Your task to perform on an android device: Show the shopping cart on costco. Add "macbook pro 13 inch" to the cart on costco, then select checkout. Image 0: 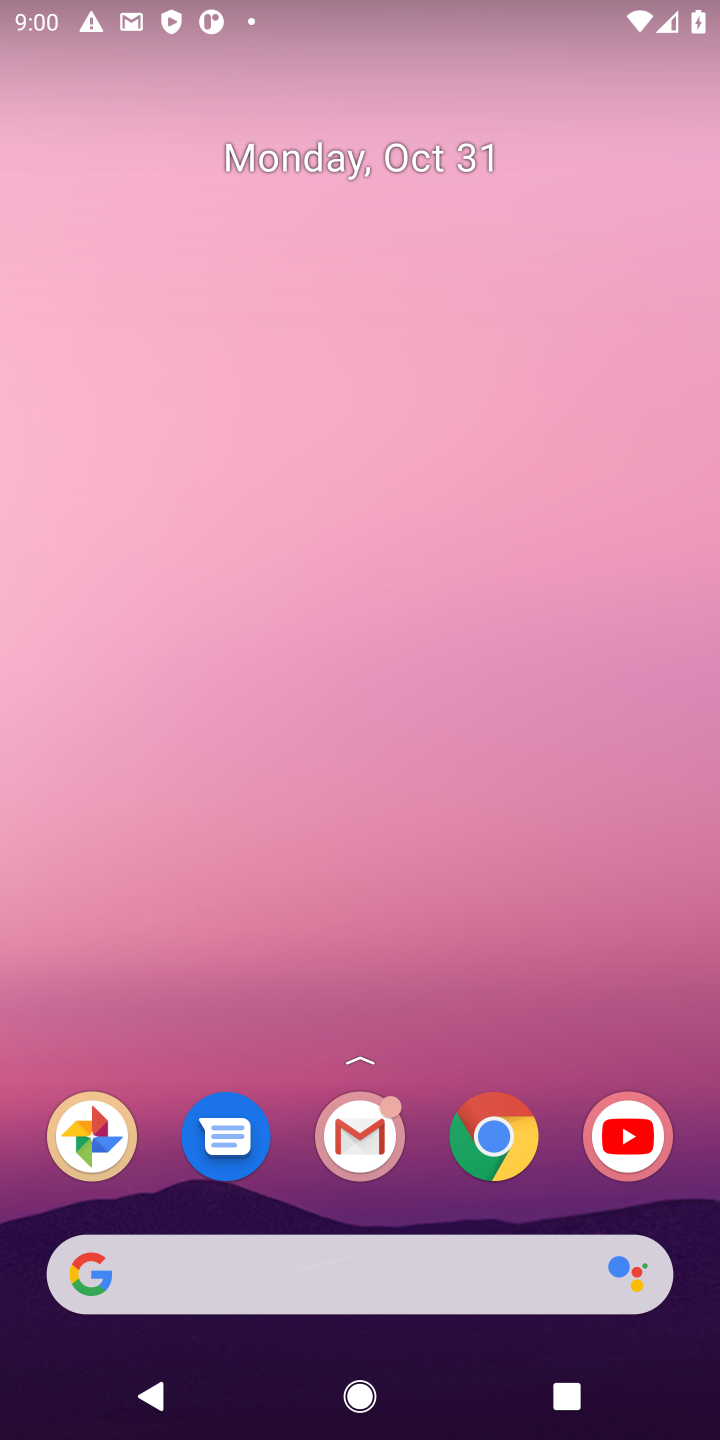
Step 0: click (89, 1274)
Your task to perform on an android device: Show the shopping cart on costco. Add "macbook pro 13 inch" to the cart on costco, then select checkout. Image 1: 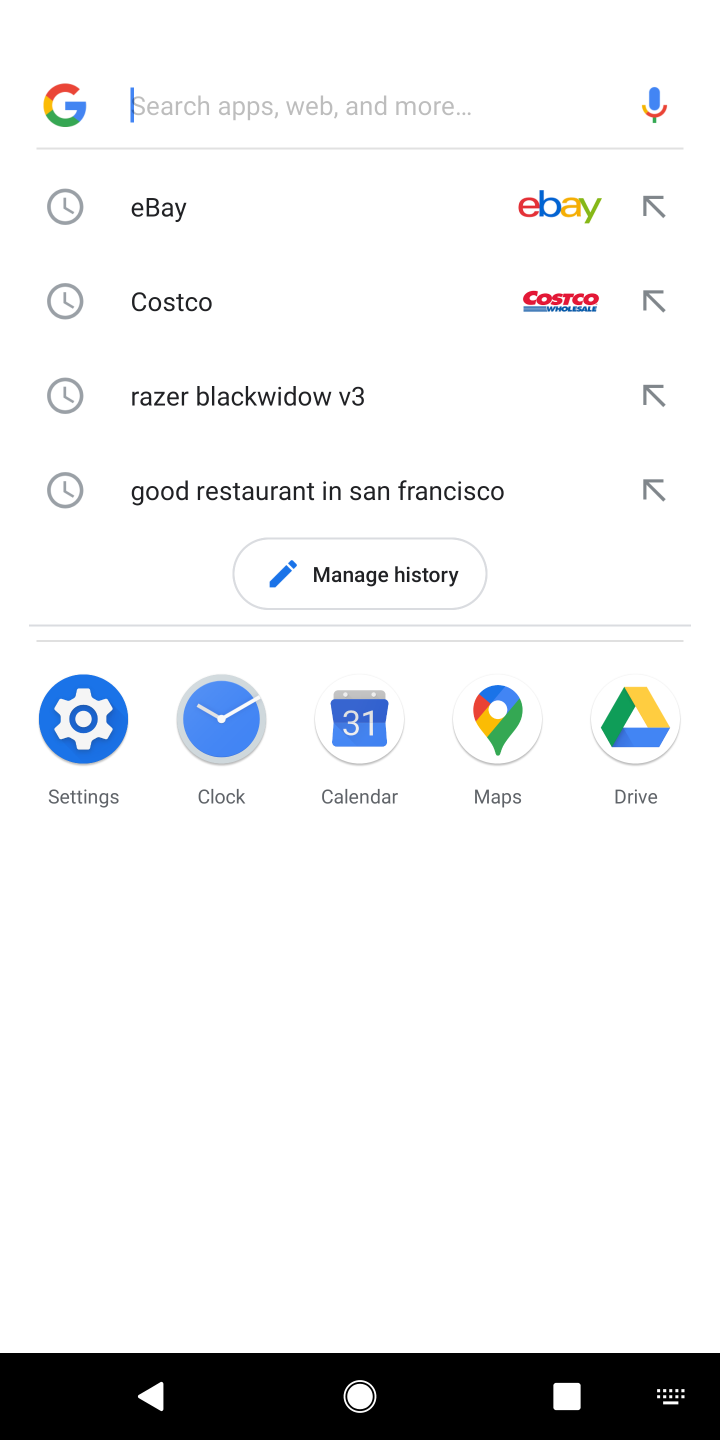
Step 1: type "cos"
Your task to perform on an android device: Show the shopping cart on costco. Add "macbook pro 13 inch" to the cart on costco, then select checkout. Image 2: 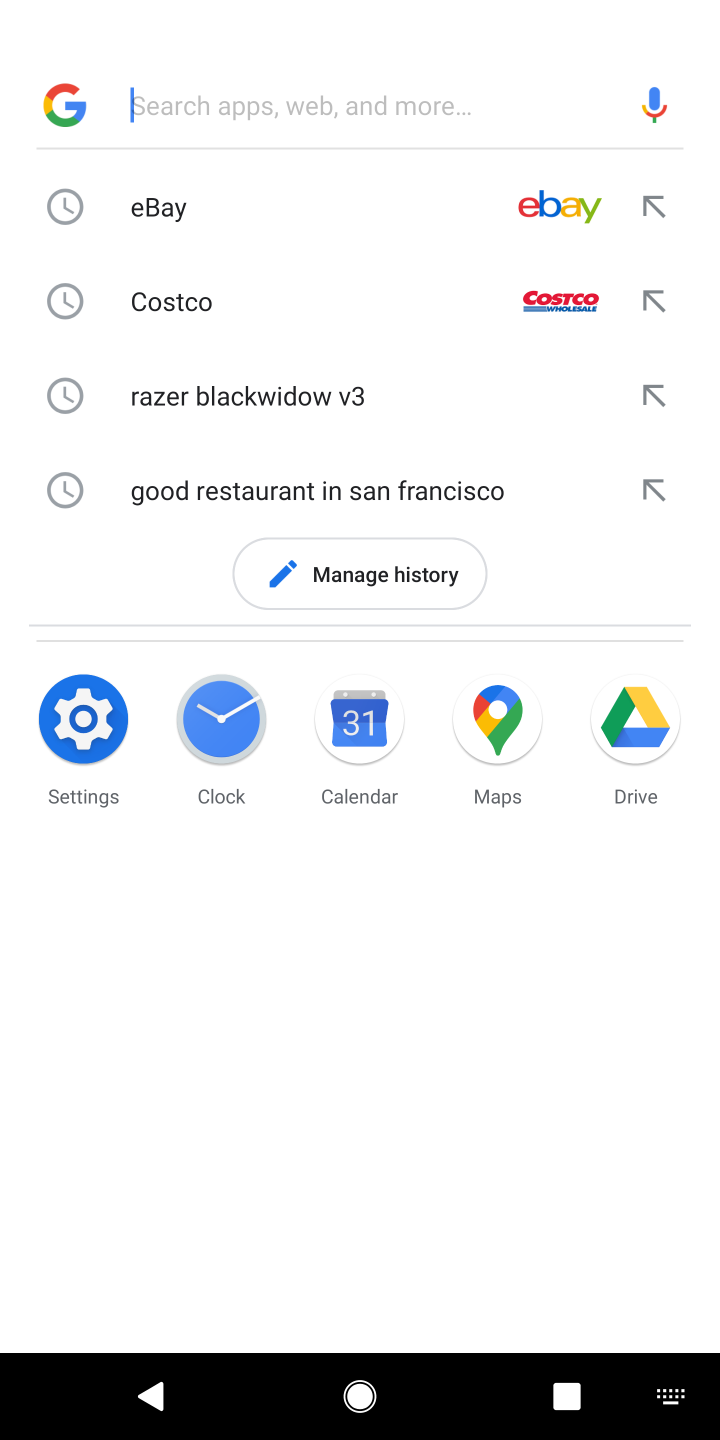
Step 2: click (210, 312)
Your task to perform on an android device: Show the shopping cart on costco. Add "macbook pro 13 inch" to the cart on costco, then select checkout. Image 3: 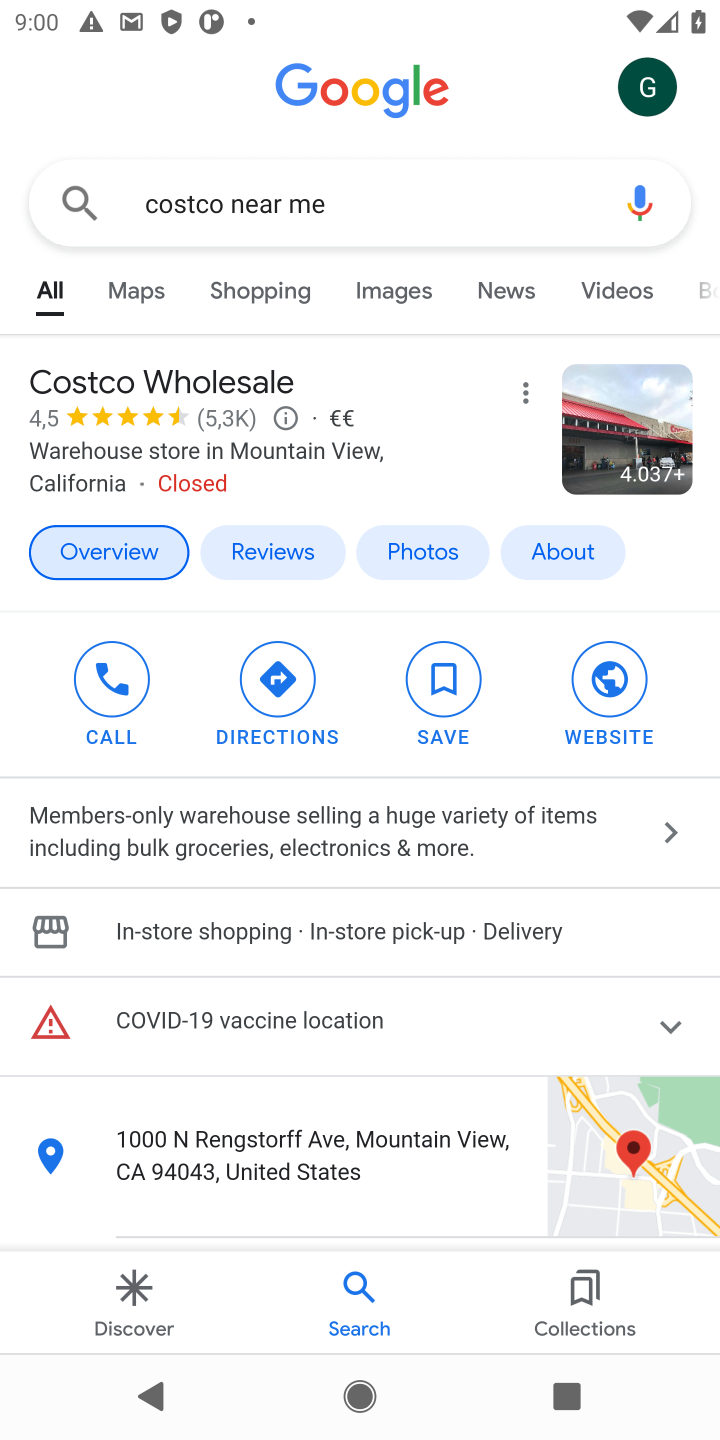
Step 3: click (129, 376)
Your task to perform on an android device: Show the shopping cart on costco. Add "macbook pro 13 inch" to the cart on costco, then select checkout. Image 4: 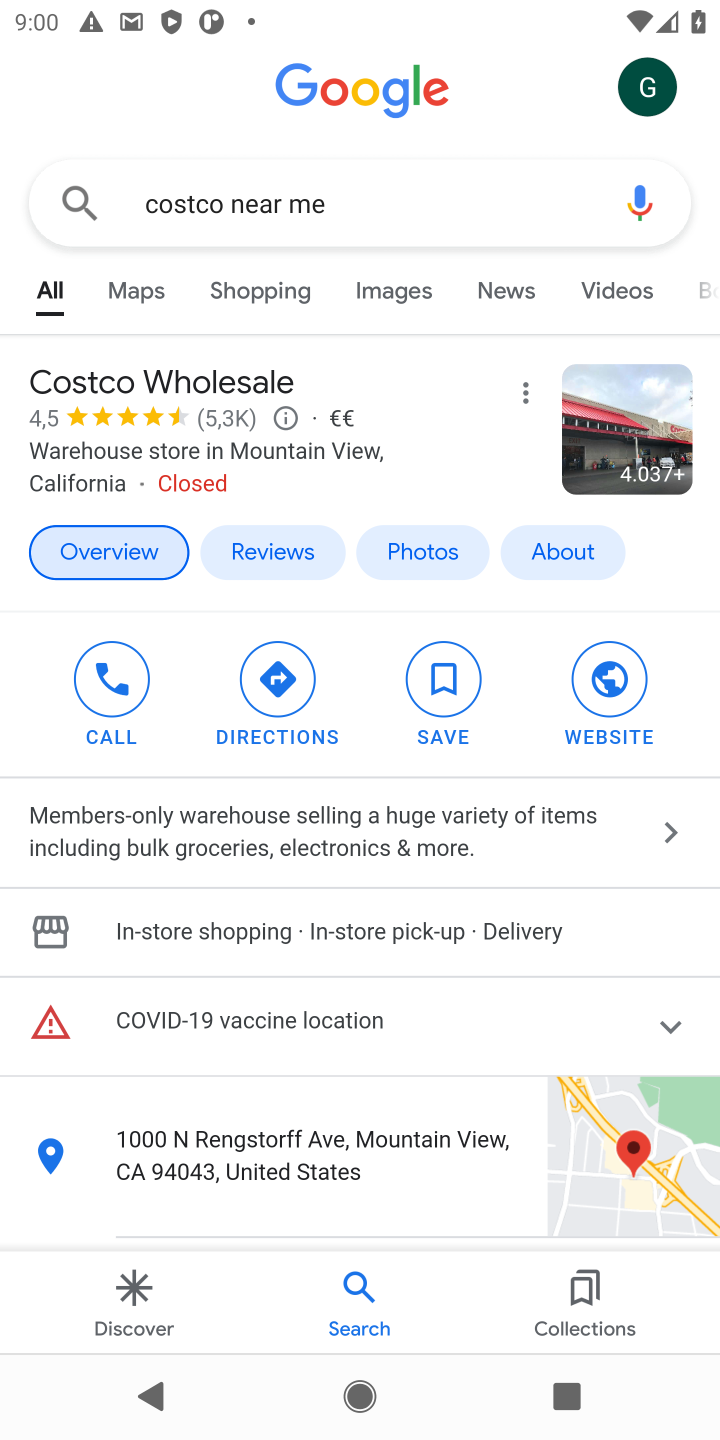
Step 4: click (466, 194)
Your task to perform on an android device: Show the shopping cart on costco. Add "macbook pro 13 inch" to the cart on costco, then select checkout. Image 5: 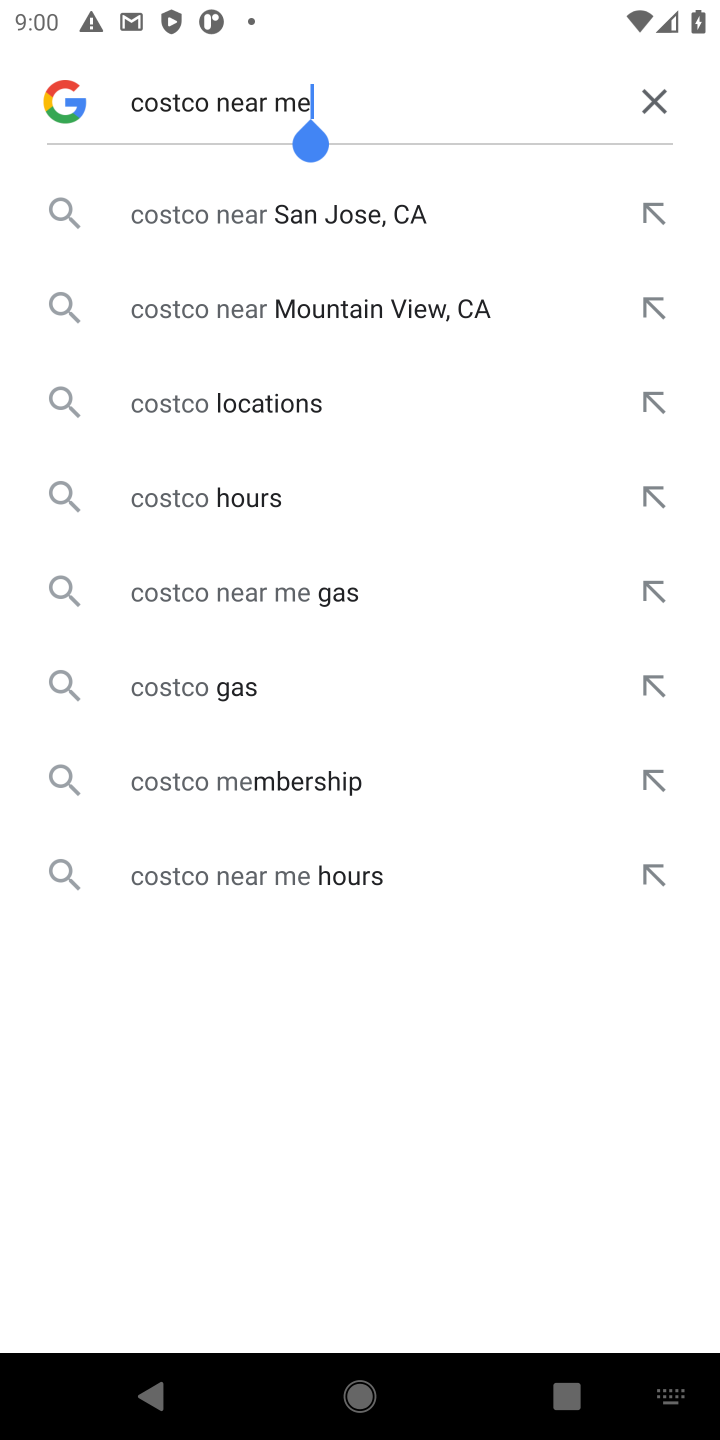
Step 5: click (652, 100)
Your task to perform on an android device: Show the shopping cart on costco. Add "macbook pro 13 inch" to the cart on costco, then select checkout. Image 6: 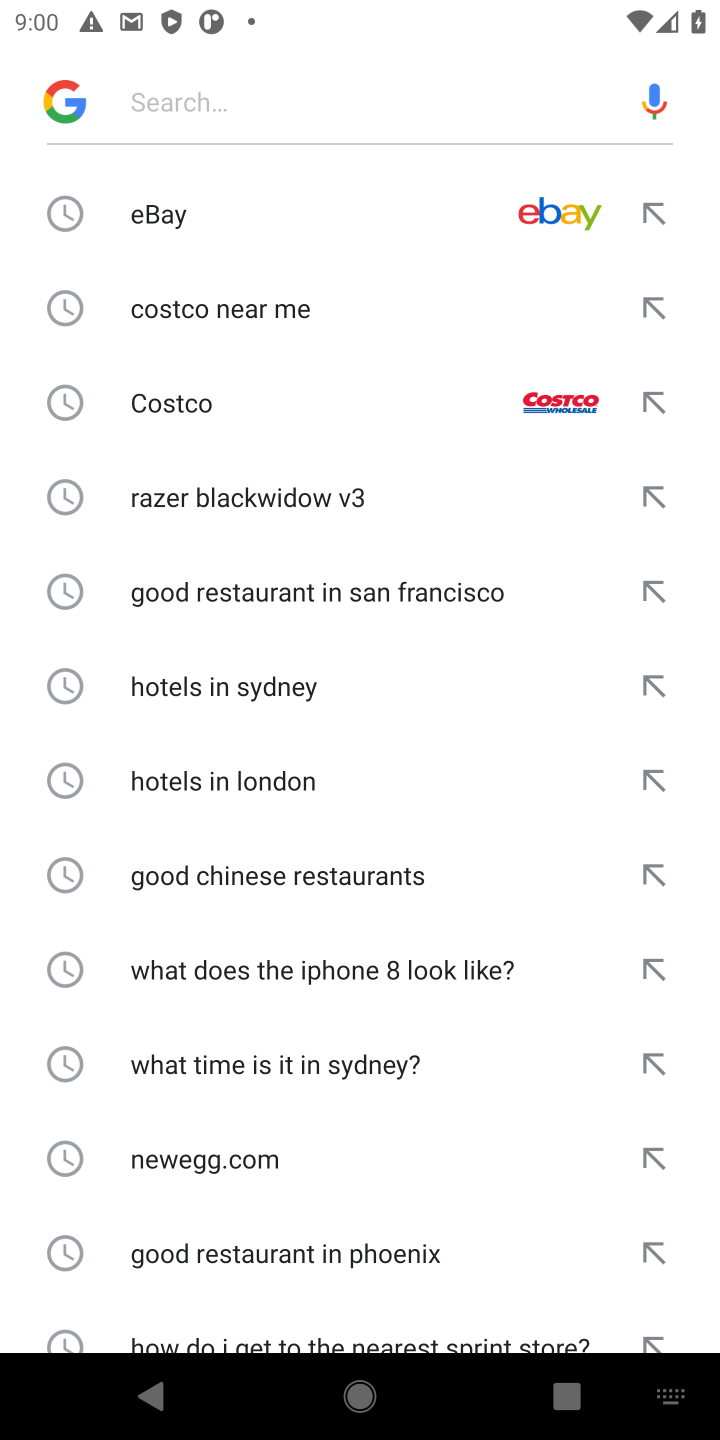
Step 6: click (189, 403)
Your task to perform on an android device: Show the shopping cart on costco. Add "macbook pro 13 inch" to the cart on costco, then select checkout. Image 7: 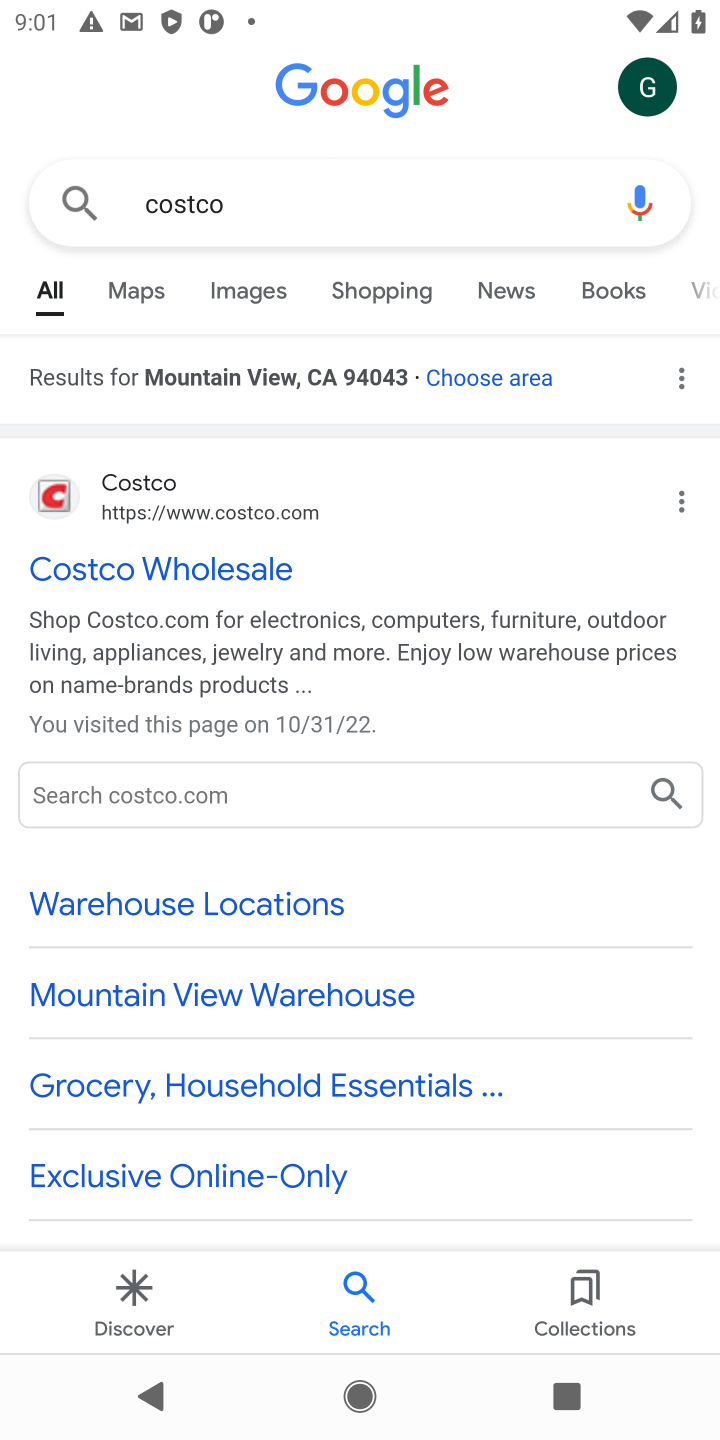
Step 7: click (188, 571)
Your task to perform on an android device: Show the shopping cart on costco. Add "macbook pro 13 inch" to the cart on costco, then select checkout. Image 8: 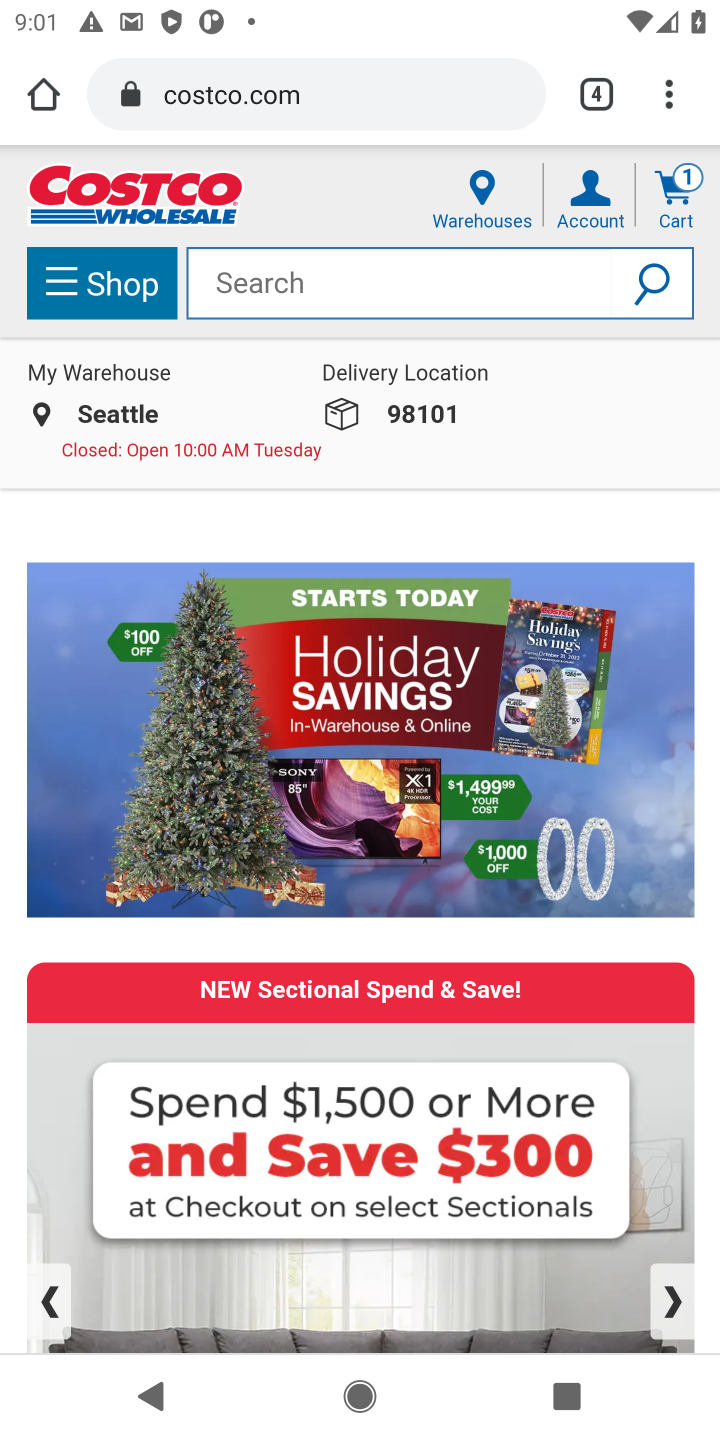
Step 8: click (376, 293)
Your task to perform on an android device: Show the shopping cart on costco. Add "macbook pro 13 inch" to the cart on costco, then select checkout. Image 9: 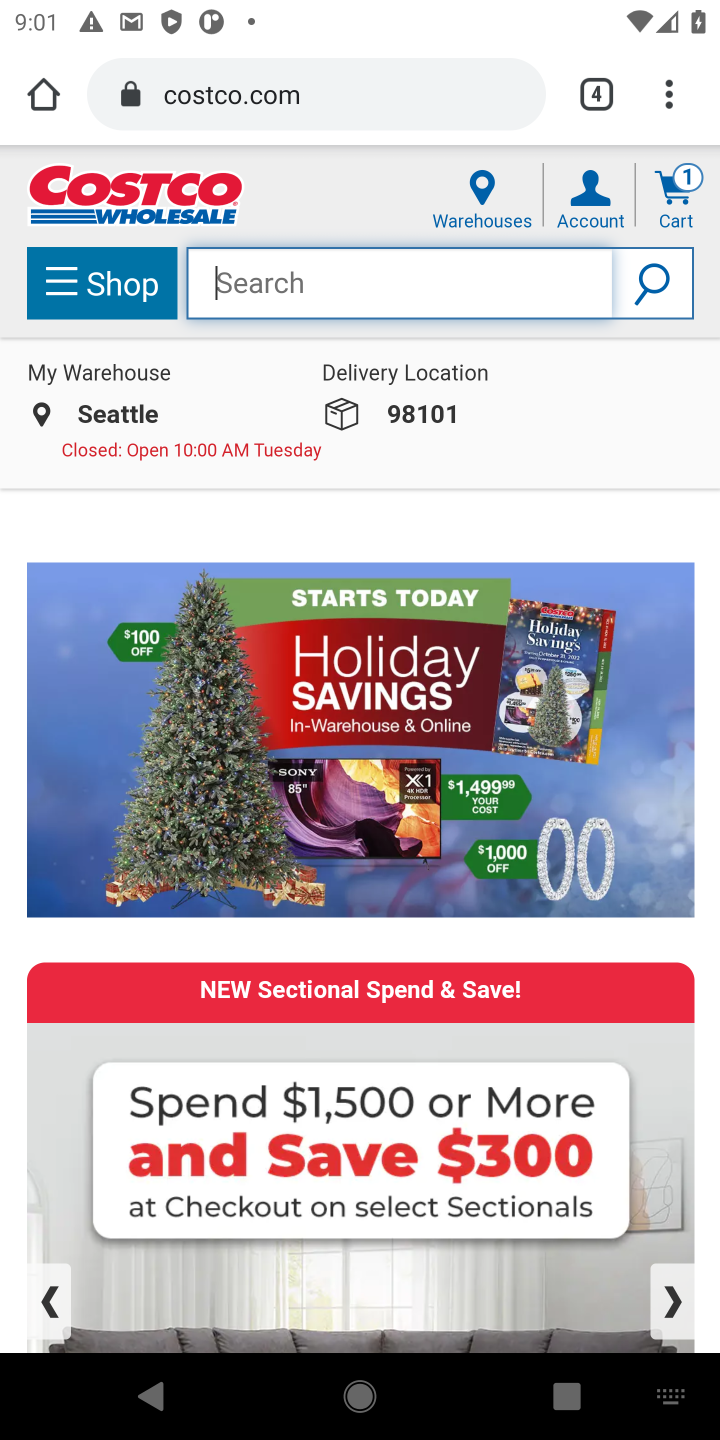
Step 9: type "macbook pro 13 inch"
Your task to perform on an android device: Show the shopping cart on costco. Add "macbook pro 13 inch" to the cart on costco, then select checkout. Image 10: 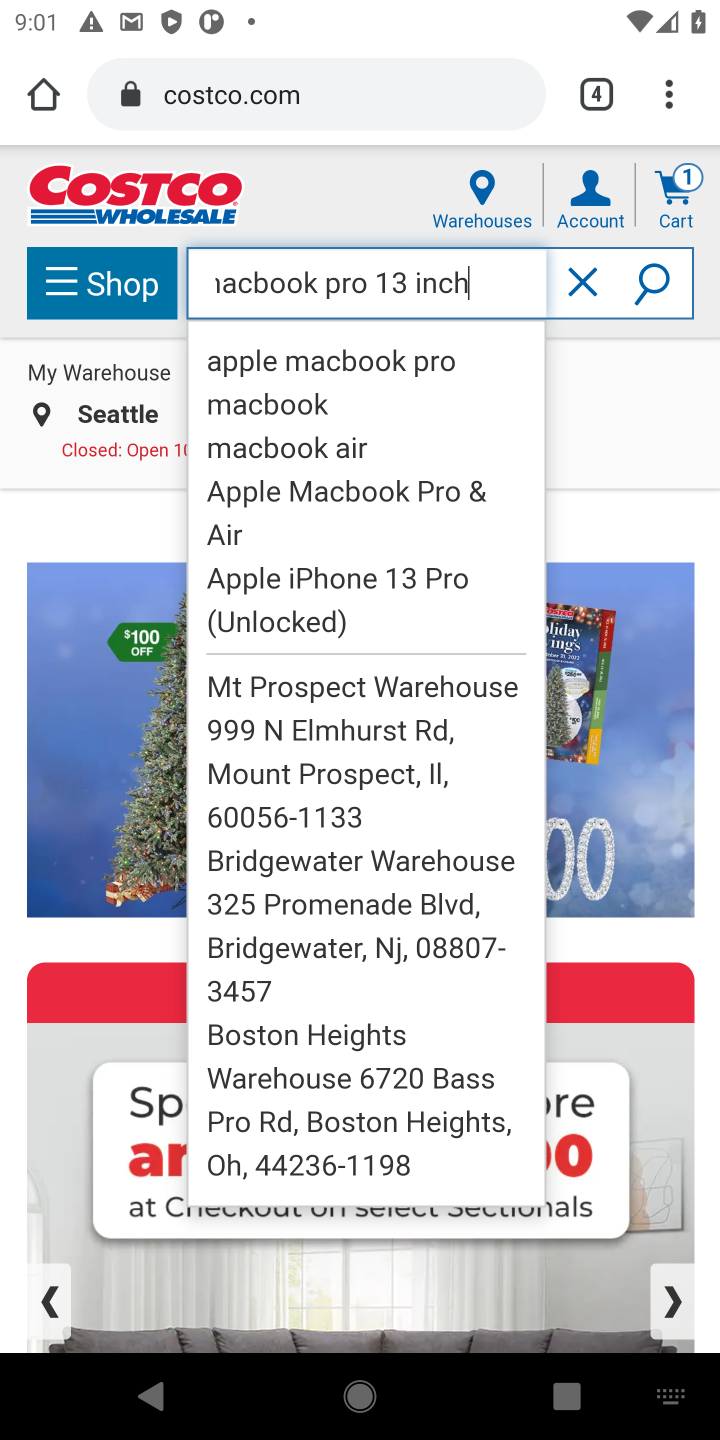
Step 10: click (411, 377)
Your task to perform on an android device: Show the shopping cart on costco. Add "macbook pro 13 inch" to the cart on costco, then select checkout. Image 11: 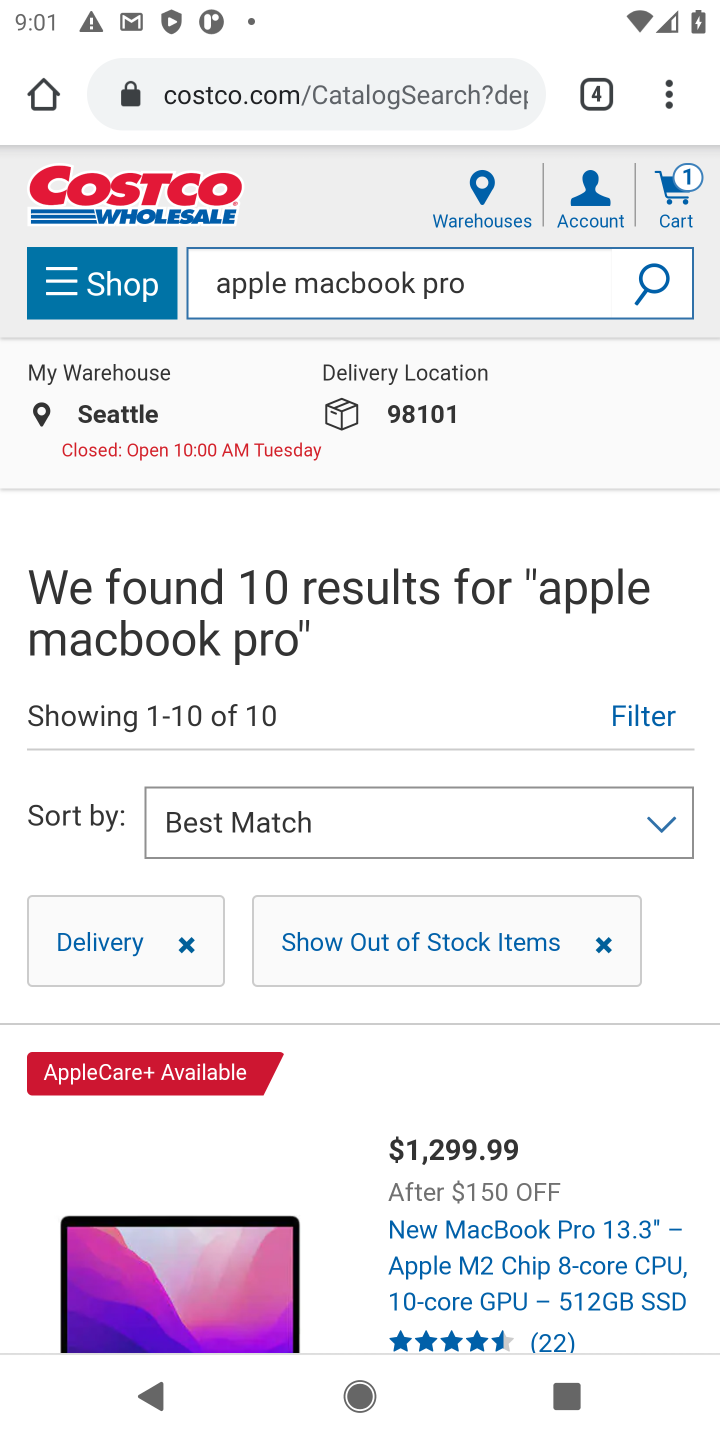
Step 11: drag from (258, 1222) to (272, 357)
Your task to perform on an android device: Show the shopping cart on costco. Add "macbook pro 13 inch" to the cart on costco, then select checkout. Image 12: 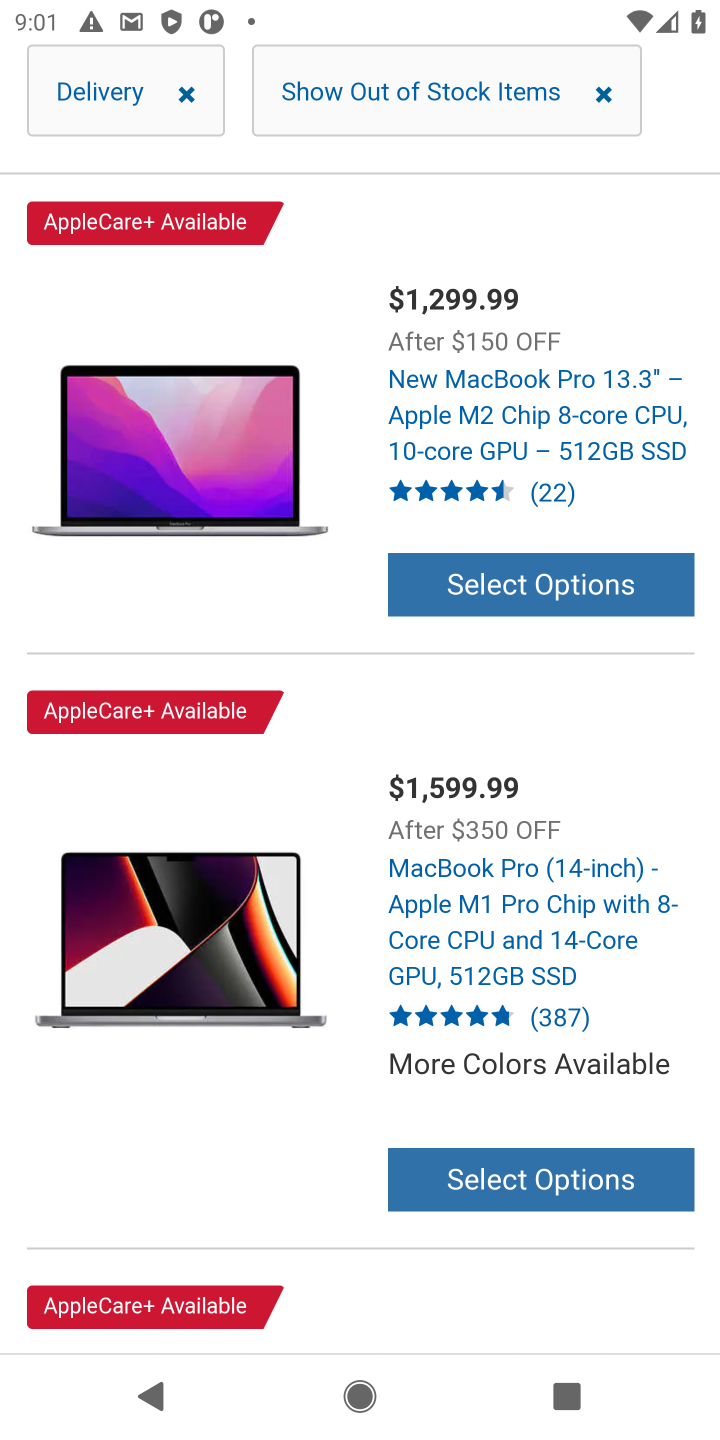
Step 12: click (572, 589)
Your task to perform on an android device: Show the shopping cart on costco. Add "macbook pro 13 inch" to the cart on costco, then select checkout. Image 13: 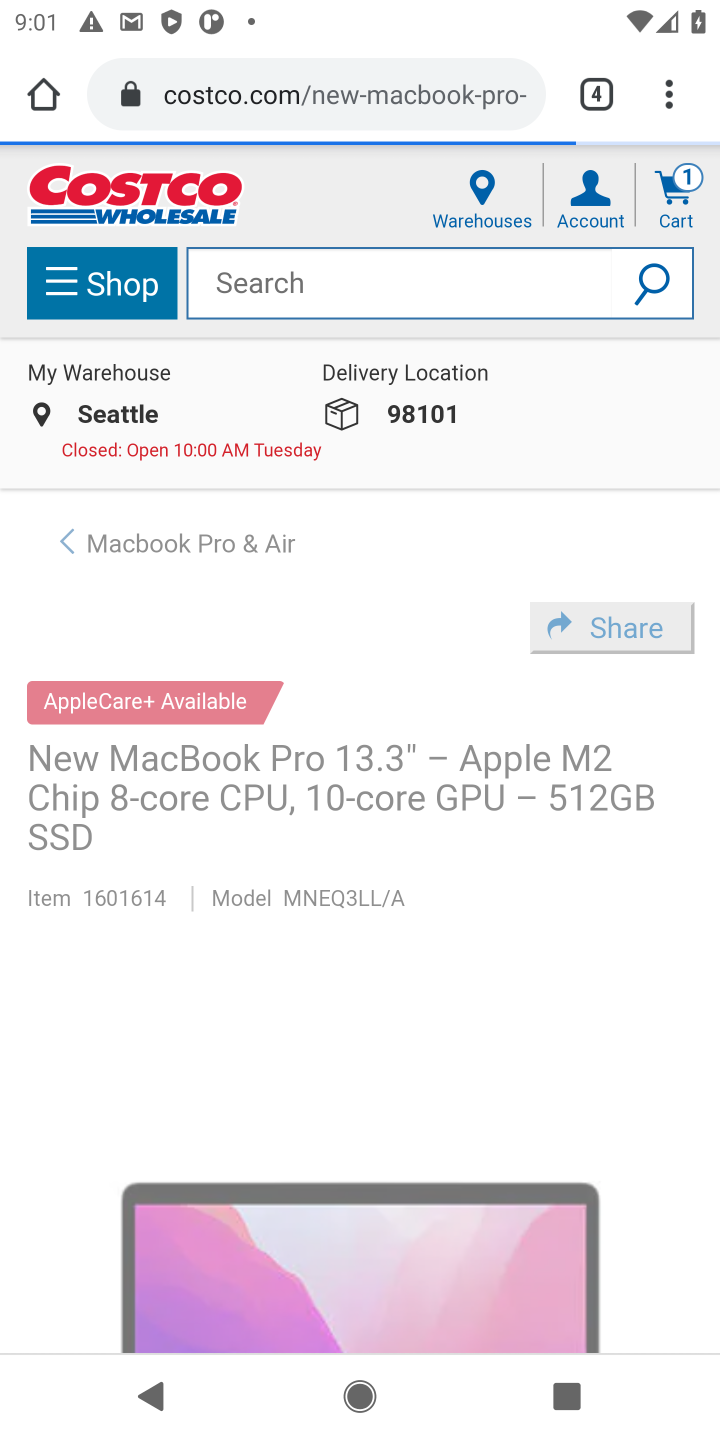
Step 13: drag from (418, 1211) to (378, 260)
Your task to perform on an android device: Show the shopping cart on costco. Add "macbook pro 13 inch" to the cart on costco, then select checkout. Image 14: 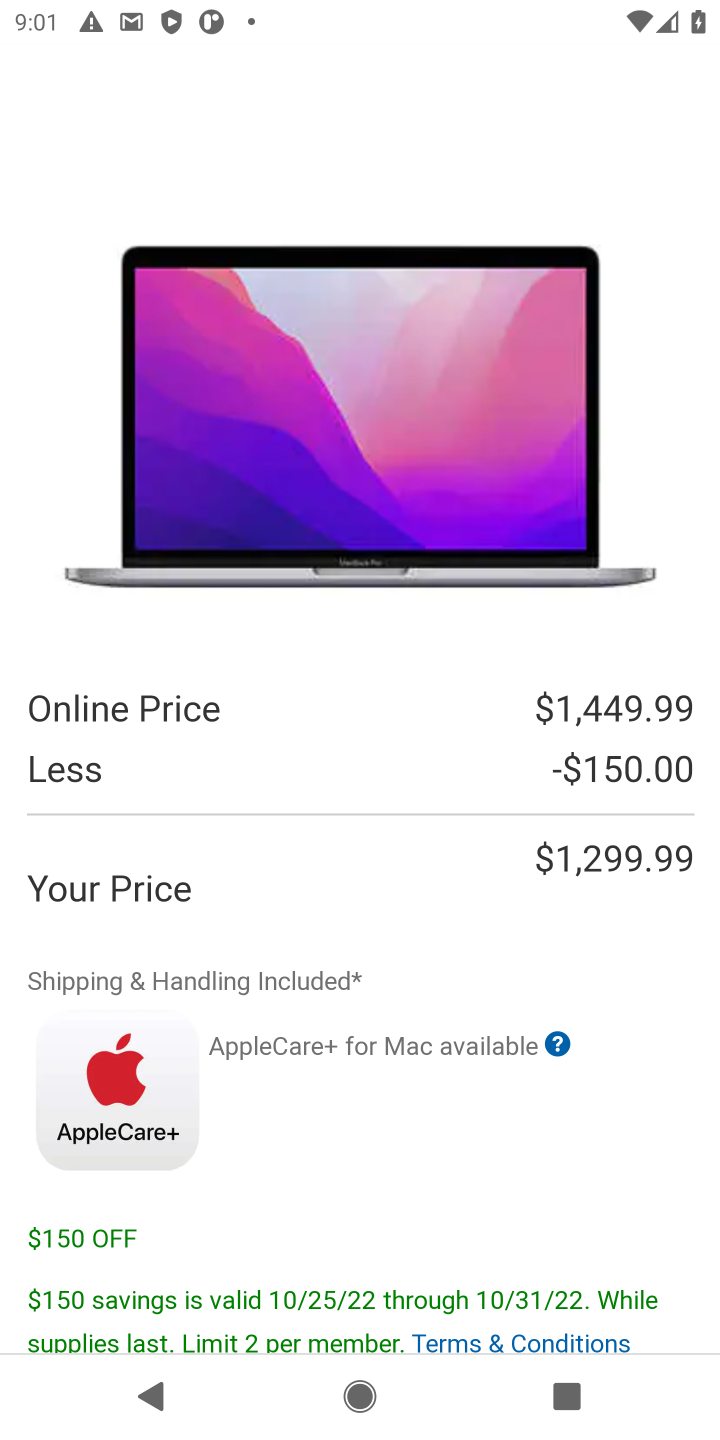
Step 14: drag from (427, 1077) to (372, 349)
Your task to perform on an android device: Show the shopping cart on costco. Add "macbook pro 13 inch" to the cart on costco, then select checkout. Image 15: 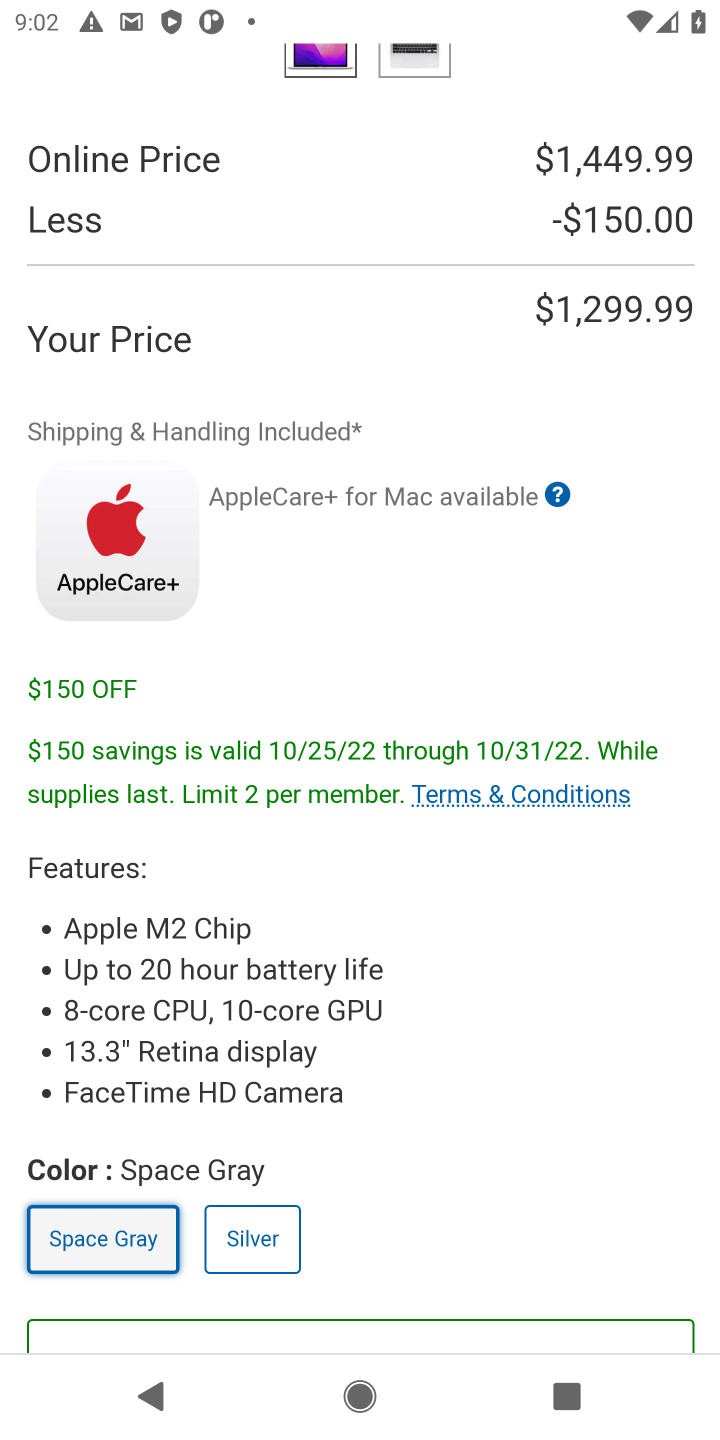
Step 15: drag from (386, 1150) to (343, 461)
Your task to perform on an android device: Show the shopping cart on costco. Add "macbook pro 13 inch" to the cart on costco, then select checkout. Image 16: 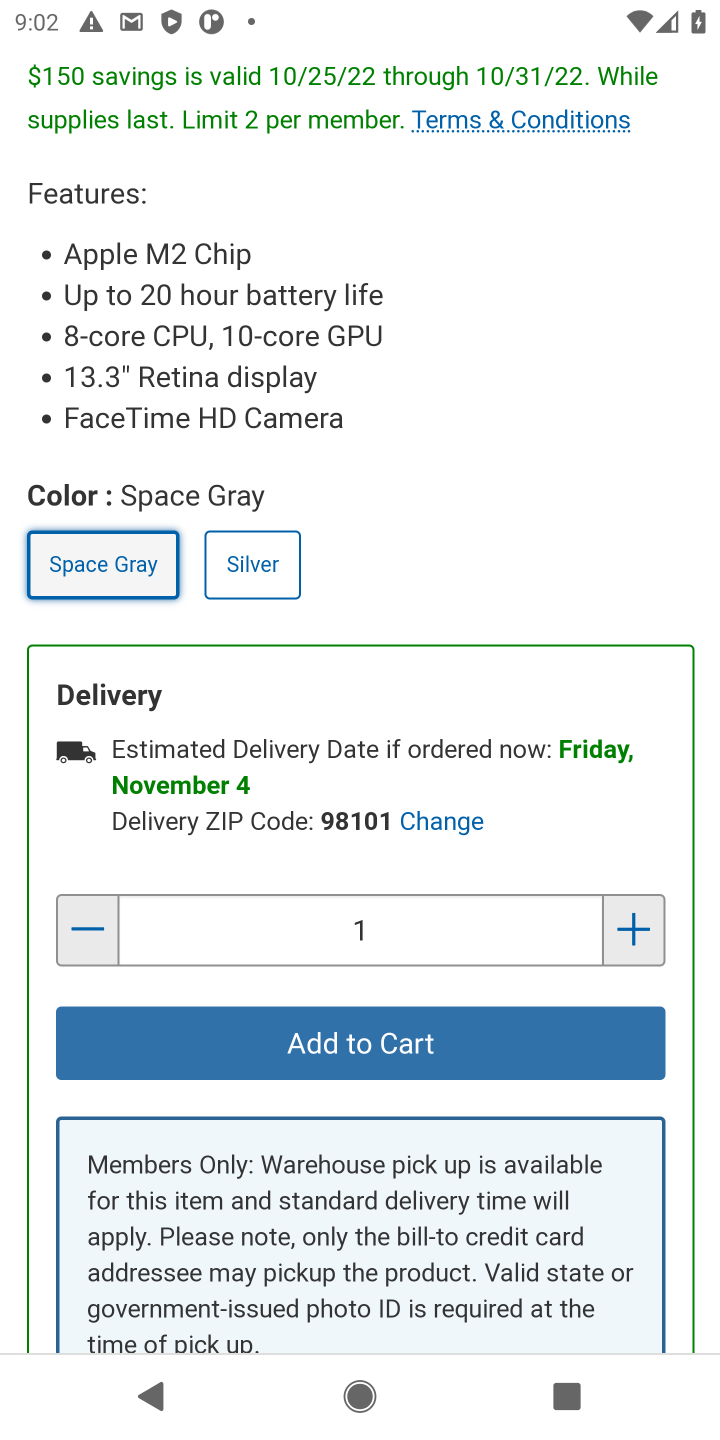
Step 16: click (348, 1046)
Your task to perform on an android device: Show the shopping cart on costco. Add "macbook pro 13 inch" to the cart on costco, then select checkout. Image 17: 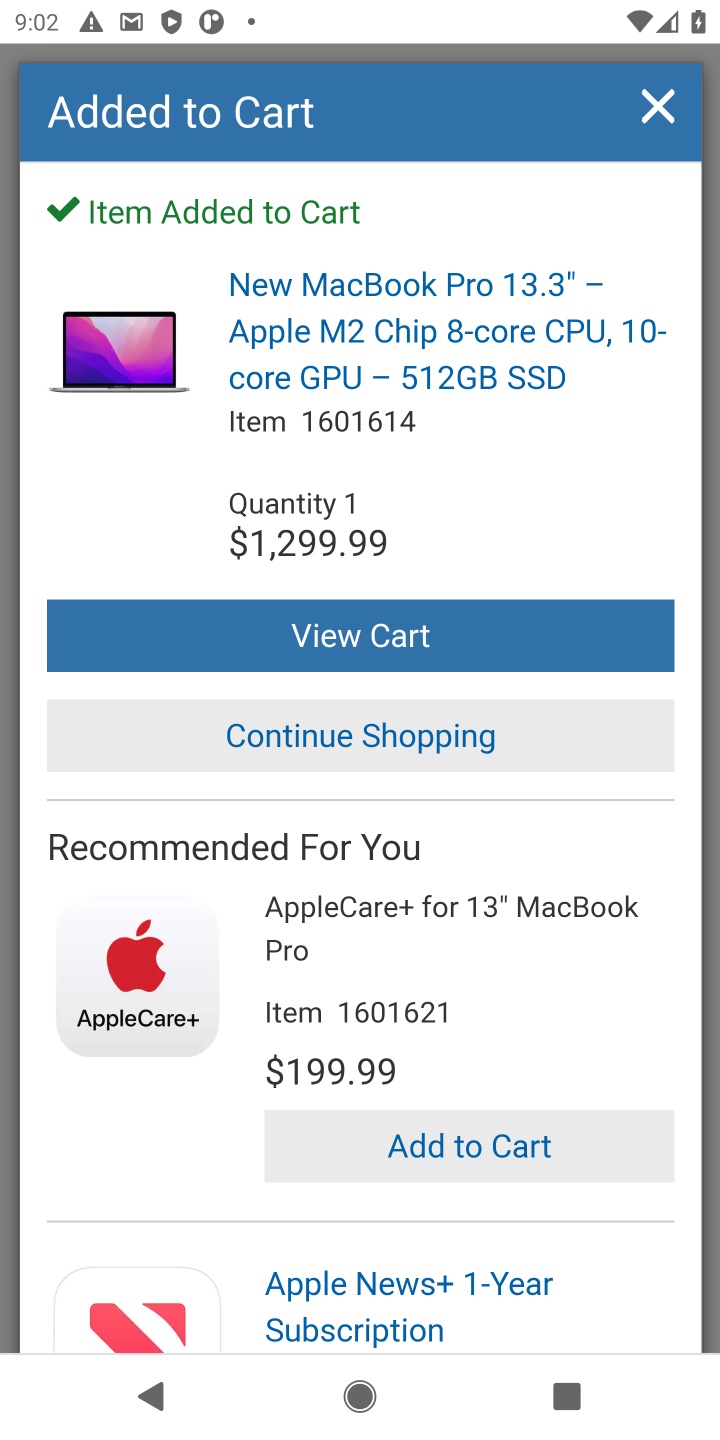
Step 17: click (379, 643)
Your task to perform on an android device: Show the shopping cart on costco. Add "macbook pro 13 inch" to the cart on costco, then select checkout. Image 18: 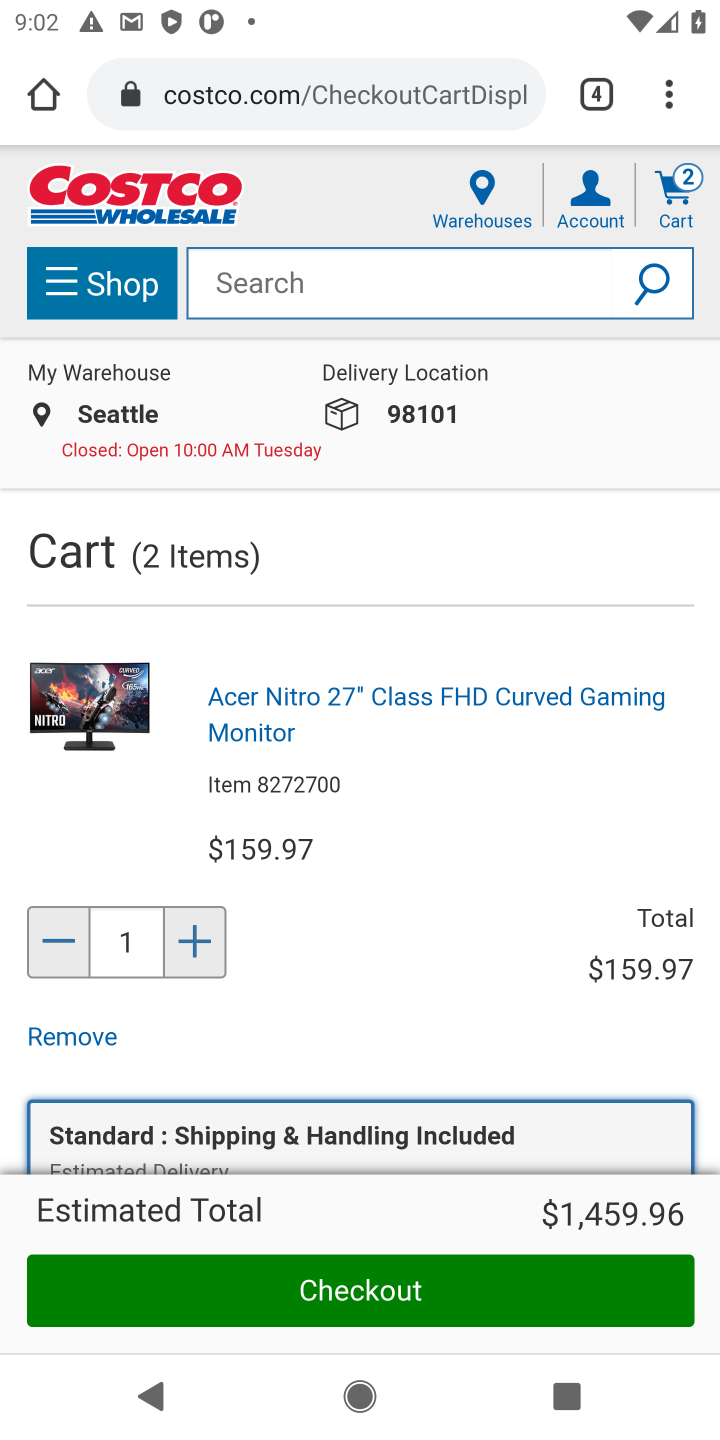
Step 18: click (379, 1294)
Your task to perform on an android device: Show the shopping cart on costco. Add "macbook pro 13 inch" to the cart on costco, then select checkout. Image 19: 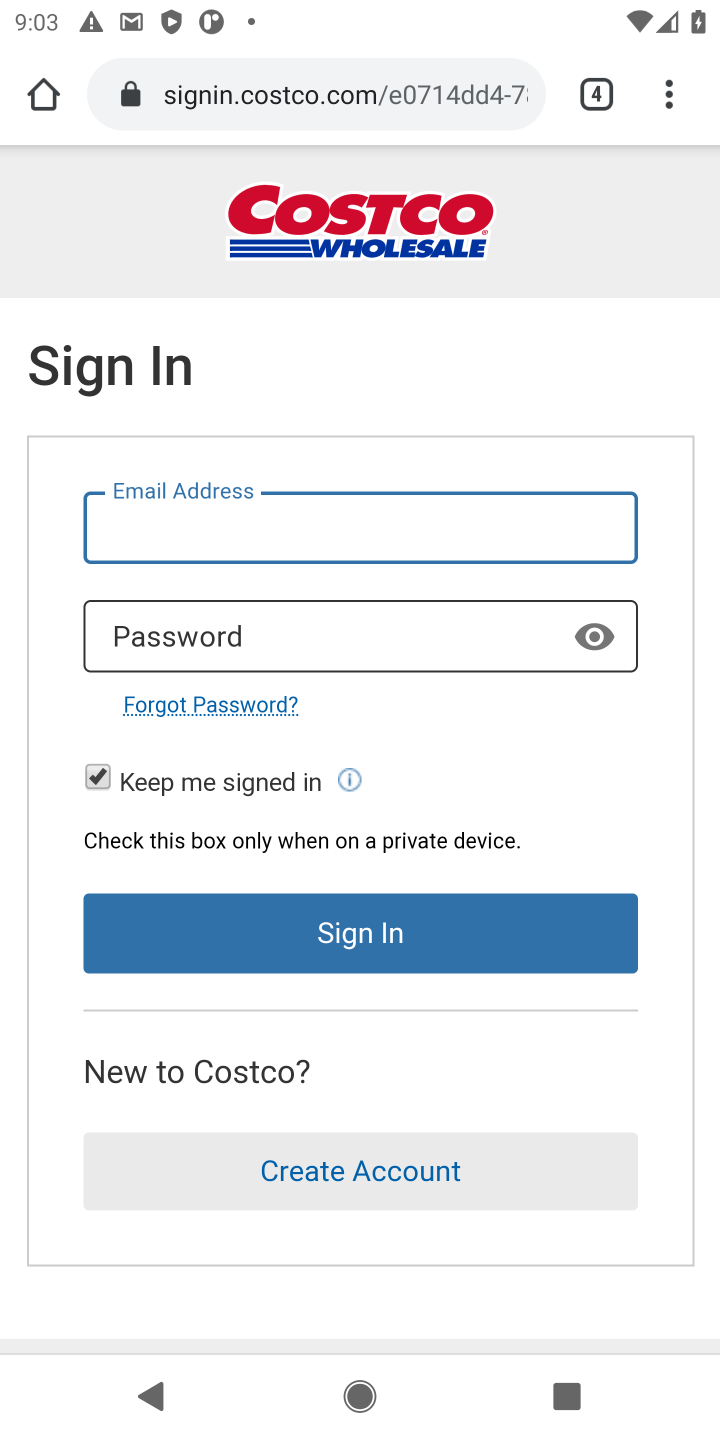
Step 19: task complete